Your task to perform on an android device: turn on wifi Image 0: 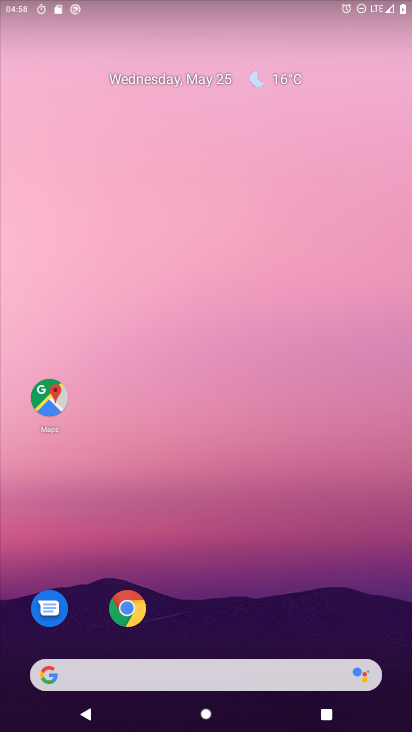
Step 0: drag from (271, 545) to (307, 99)
Your task to perform on an android device: turn on wifi Image 1: 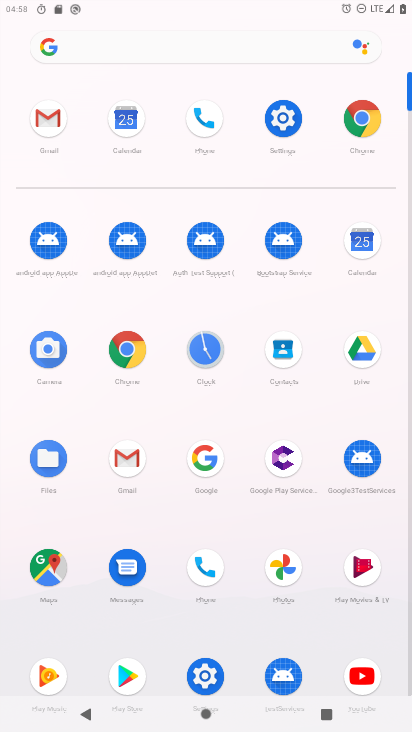
Step 1: click (282, 125)
Your task to perform on an android device: turn on wifi Image 2: 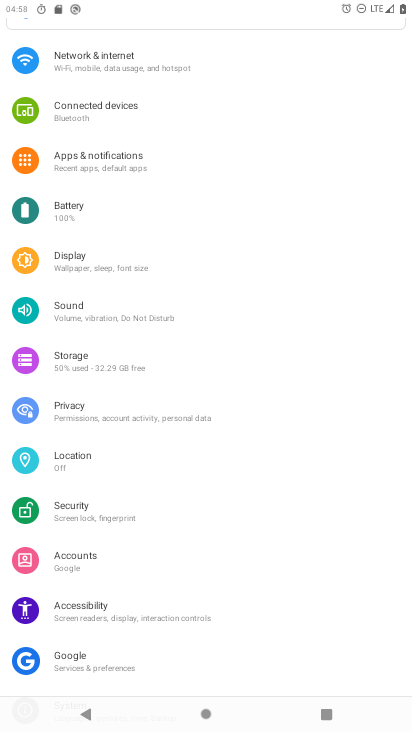
Step 2: click (100, 73)
Your task to perform on an android device: turn on wifi Image 3: 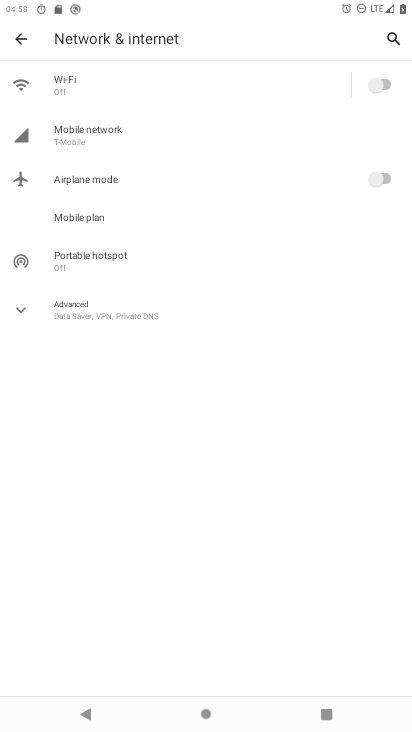
Step 3: click (112, 93)
Your task to perform on an android device: turn on wifi Image 4: 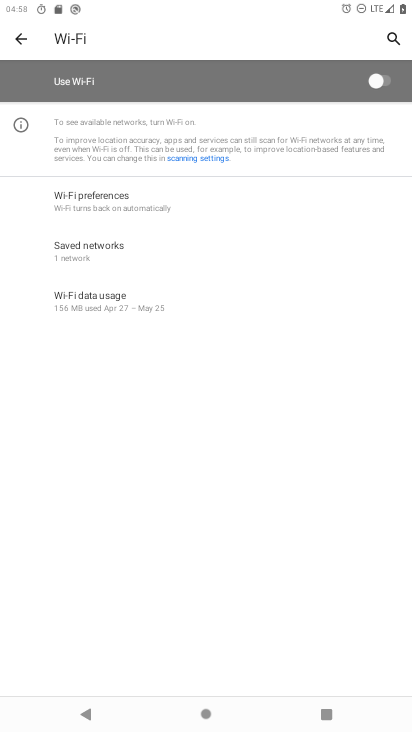
Step 4: click (379, 68)
Your task to perform on an android device: turn on wifi Image 5: 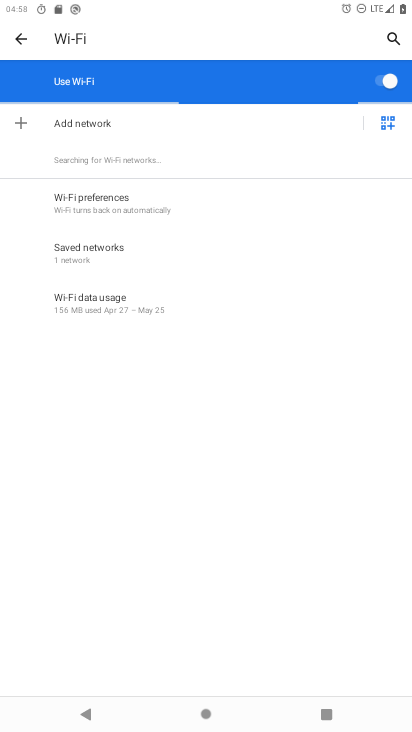
Step 5: task complete